Your task to perform on an android device: Clear the shopping cart on bestbuy. Image 0: 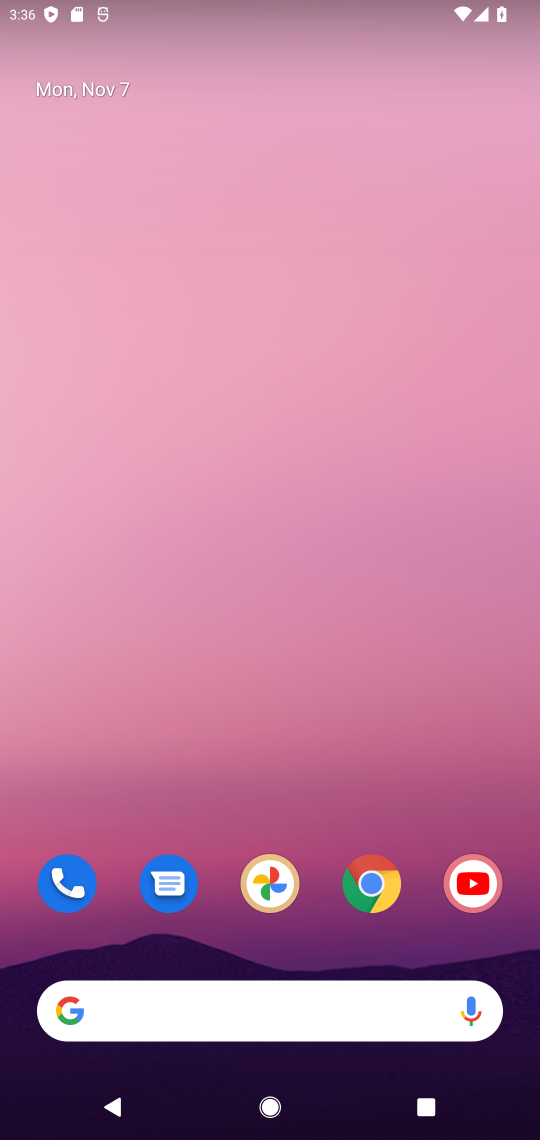
Step 0: click (377, 881)
Your task to perform on an android device: Clear the shopping cart on bestbuy. Image 1: 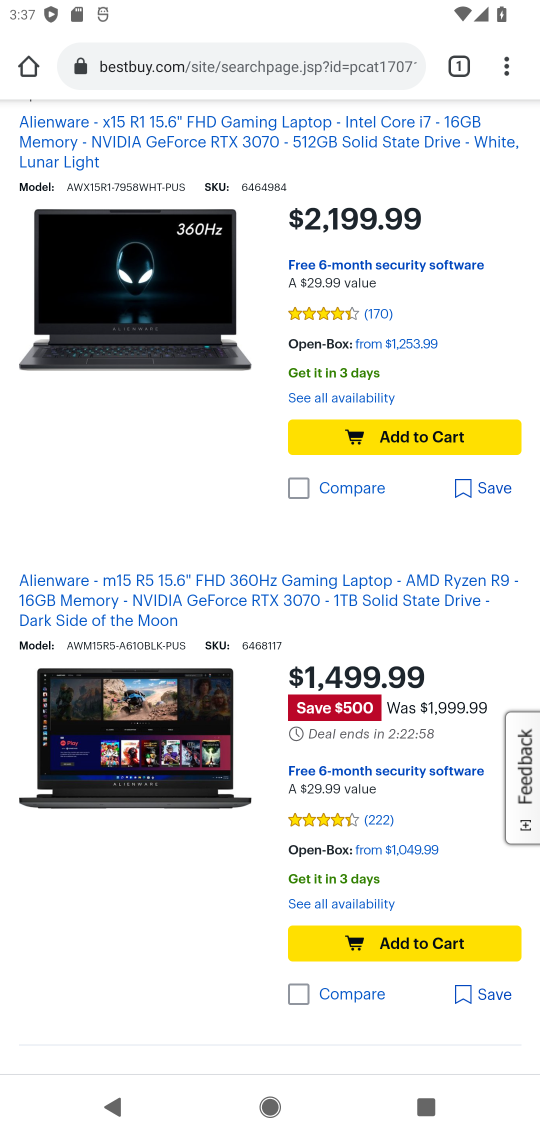
Step 1: drag from (461, 238) to (473, 921)
Your task to perform on an android device: Clear the shopping cart on bestbuy. Image 2: 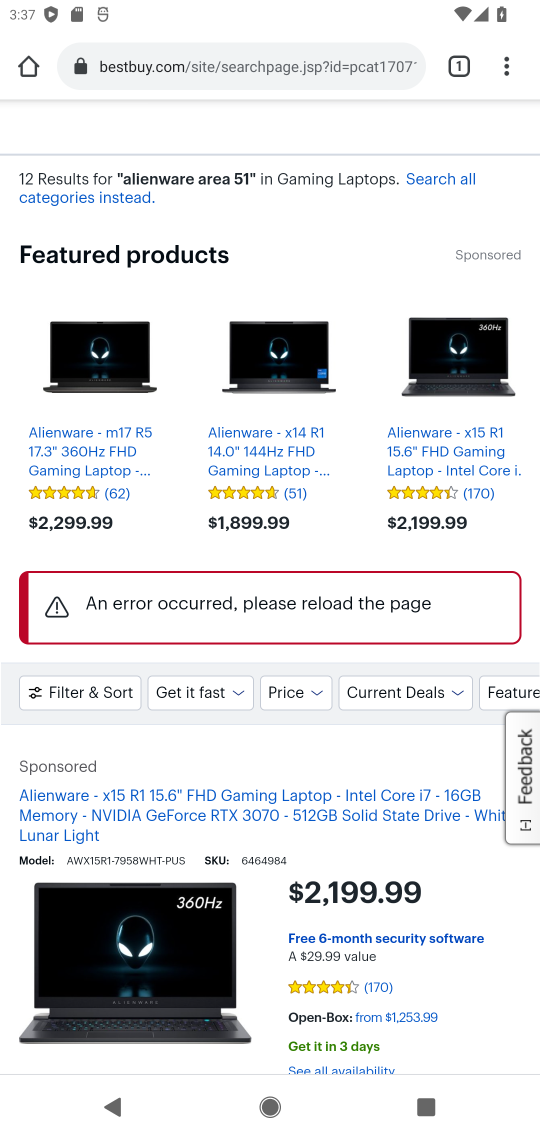
Step 2: drag from (389, 345) to (362, 854)
Your task to perform on an android device: Clear the shopping cart on bestbuy. Image 3: 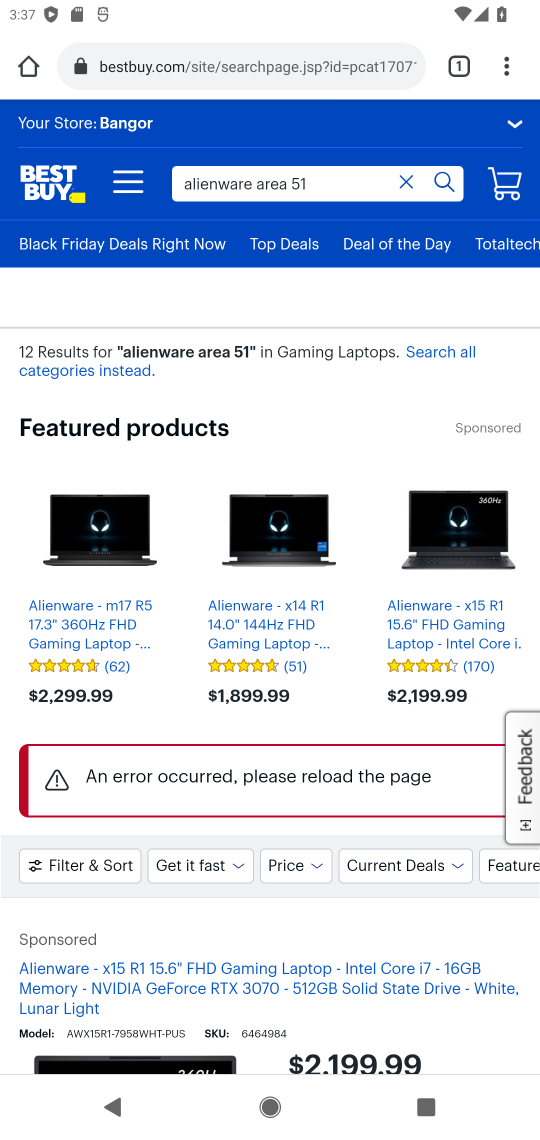
Step 3: click (500, 171)
Your task to perform on an android device: Clear the shopping cart on bestbuy. Image 4: 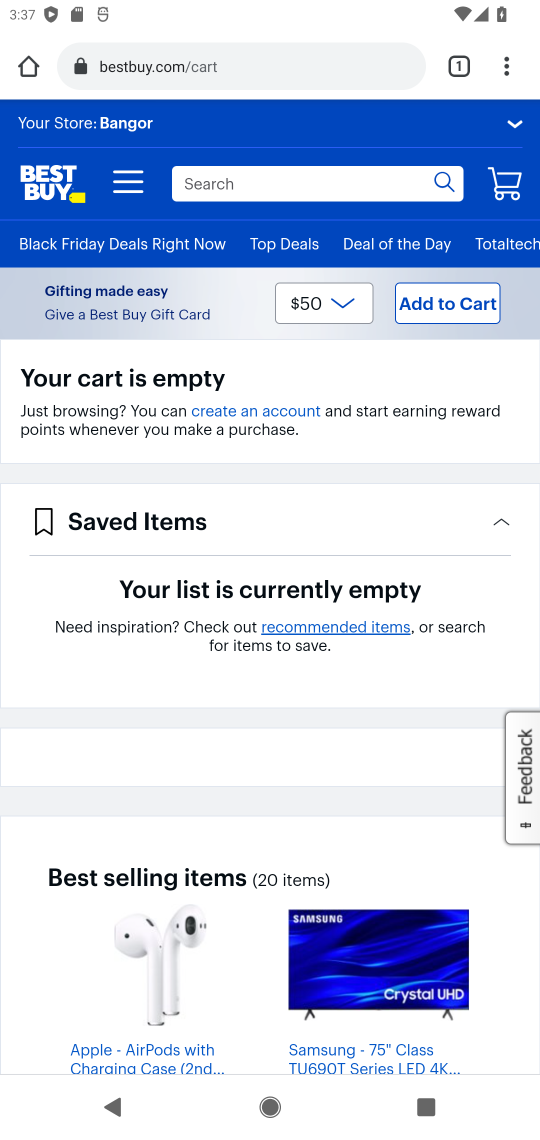
Step 4: task complete